Your task to perform on an android device: turn off smart reply in the gmail app Image 0: 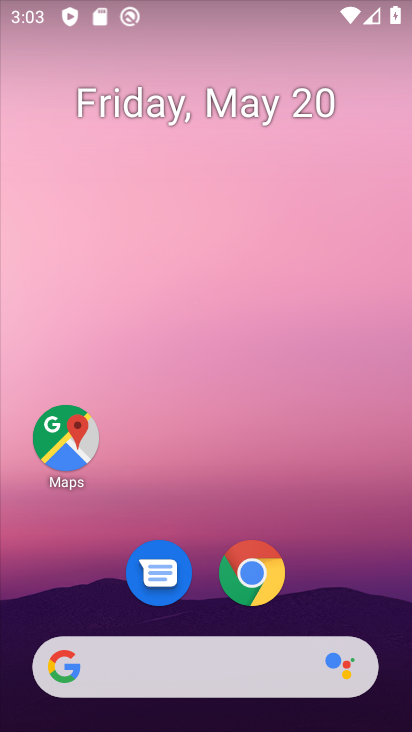
Step 0: drag from (217, 642) to (248, 35)
Your task to perform on an android device: turn off smart reply in the gmail app Image 1: 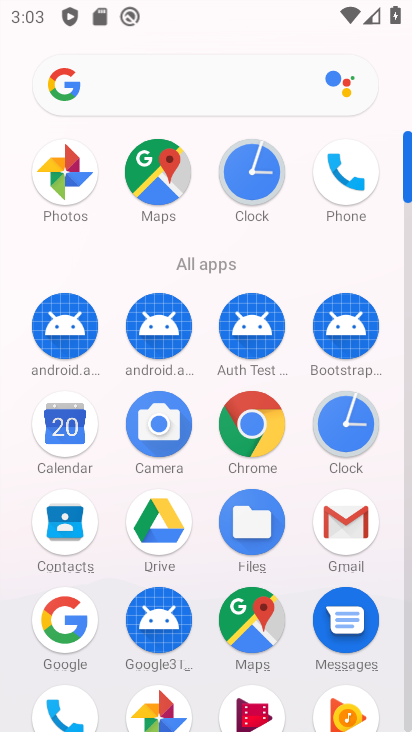
Step 1: click (358, 529)
Your task to perform on an android device: turn off smart reply in the gmail app Image 2: 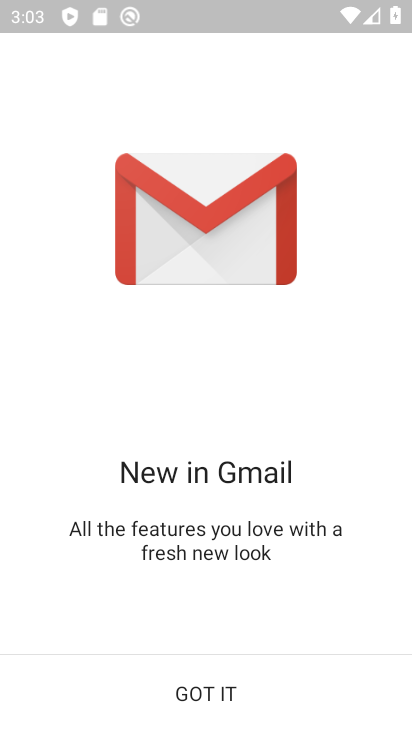
Step 2: click (126, 685)
Your task to perform on an android device: turn off smart reply in the gmail app Image 3: 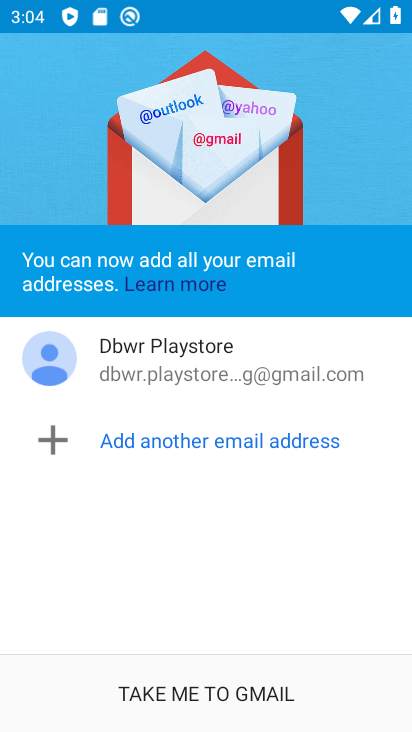
Step 3: click (126, 683)
Your task to perform on an android device: turn off smart reply in the gmail app Image 4: 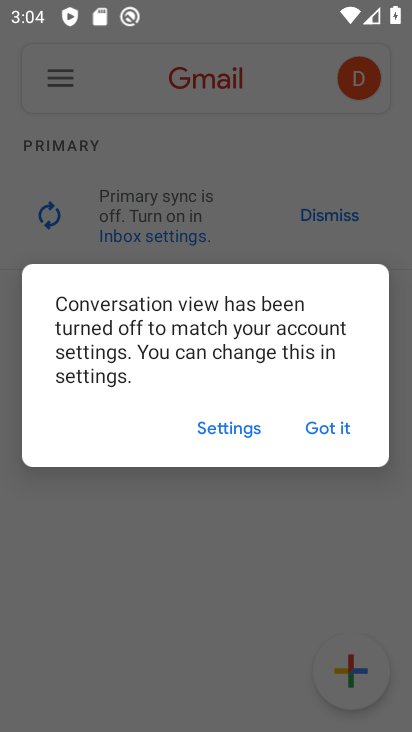
Step 4: click (334, 423)
Your task to perform on an android device: turn off smart reply in the gmail app Image 5: 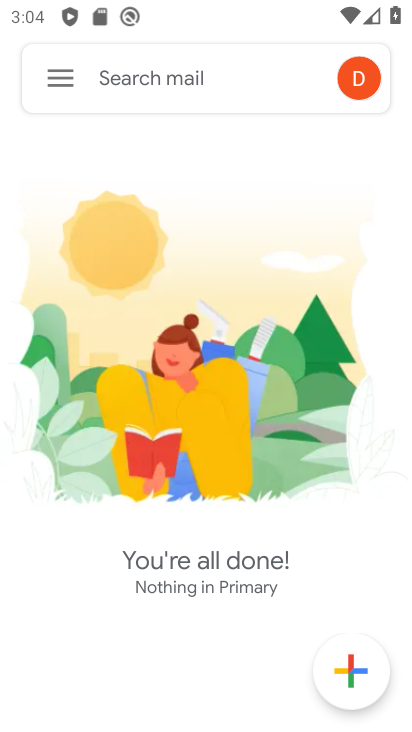
Step 5: click (67, 75)
Your task to perform on an android device: turn off smart reply in the gmail app Image 6: 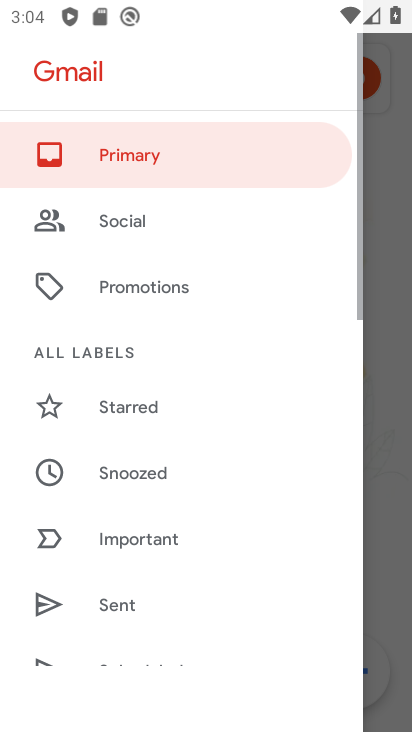
Step 6: drag from (122, 608) to (122, 3)
Your task to perform on an android device: turn off smart reply in the gmail app Image 7: 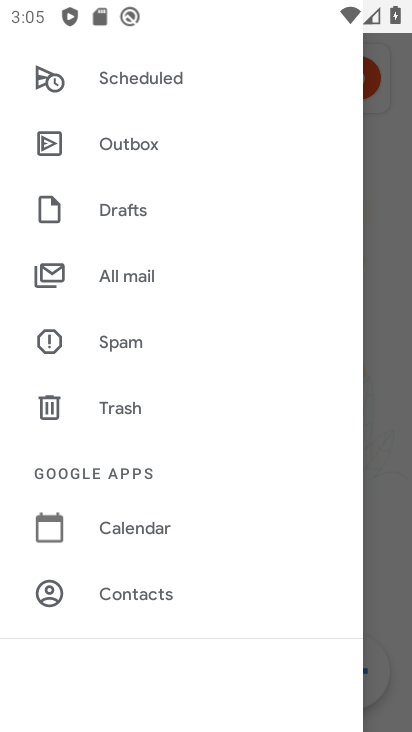
Step 7: drag from (181, 496) to (209, 17)
Your task to perform on an android device: turn off smart reply in the gmail app Image 8: 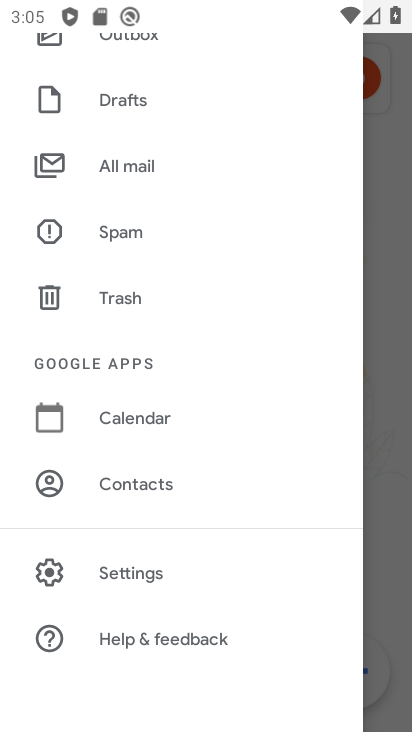
Step 8: click (133, 573)
Your task to perform on an android device: turn off smart reply in the gmail app Image 9: 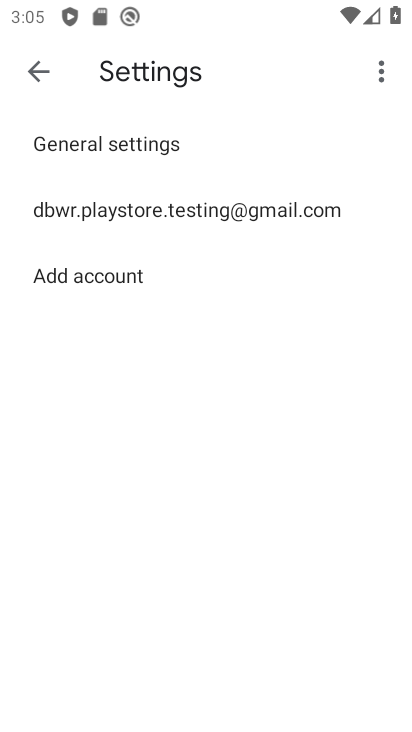
Step 9: click (85, 225)
Your task to perform on an android device: turn off smart reply in the gmail app Image 10: 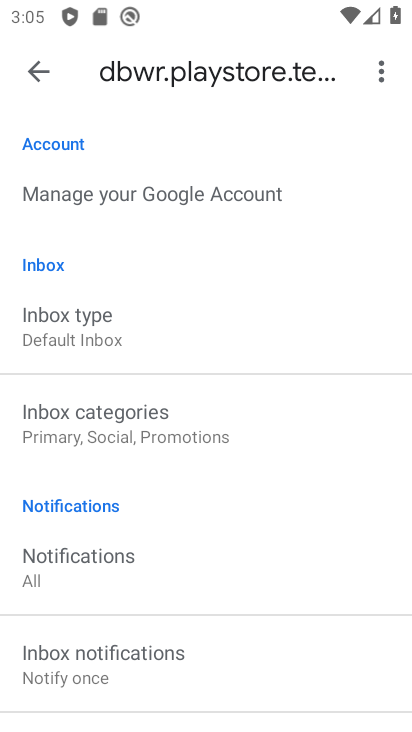
Step 10: drag from (304, 610) to (260, 12)
Your task to perform on an android device: turn off smart reply in the gmail app Image 11: 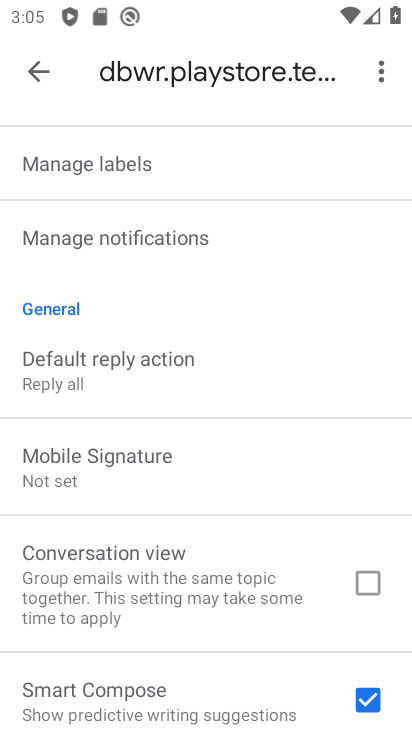
Step 11: drag from (250, 629) to (252, 72)
Your task to perform on an android device: turn off smart reply in the gmail app Image 12: 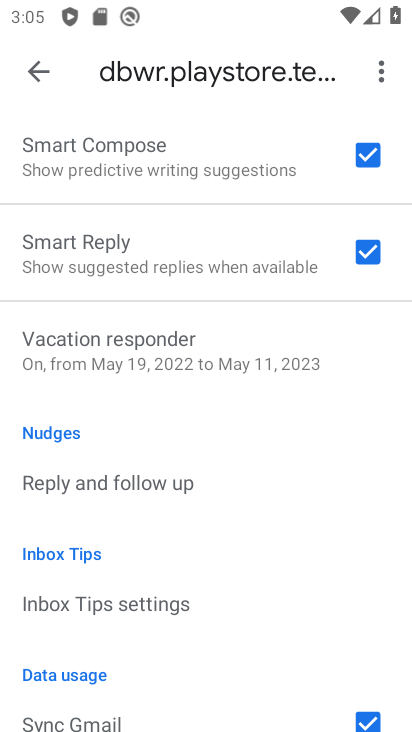
Step 12: click (334, 268)
Your task to perform on an android device: turn off smart reply in the gmail app Image 13: 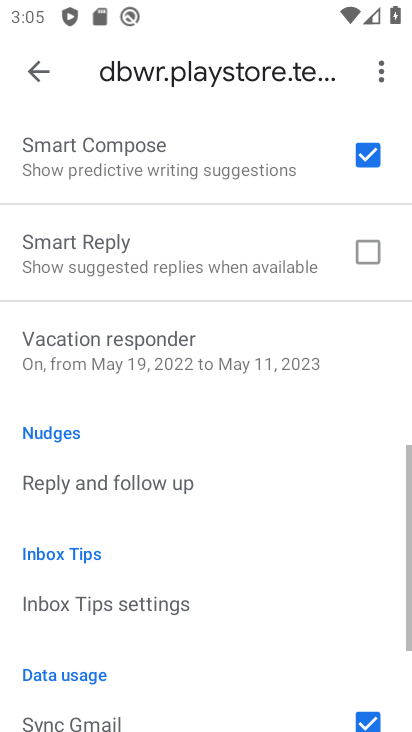
Step 13: task complete